Your task to perform on an android device: Do I have any events today? Image 0: 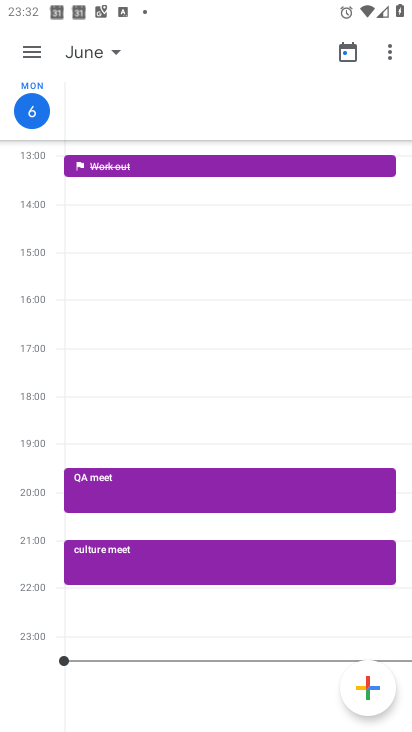
Step 0: press home button
Your task to perform on an android device: Do I have any events today? Image 1: 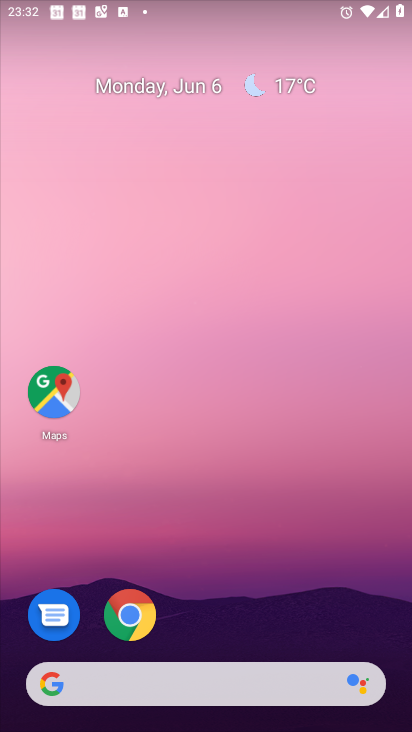
Step 1: drag from (402, 703) to (326, 109)
Your task to perform on an android device: Do I have any events today? Image 2: 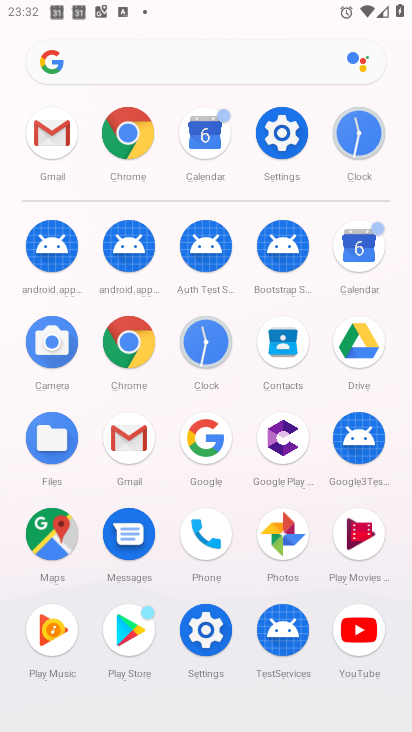
Step 2: click (347, 246)
Your task to perform on an android device: Do I have any events today? Image 3: 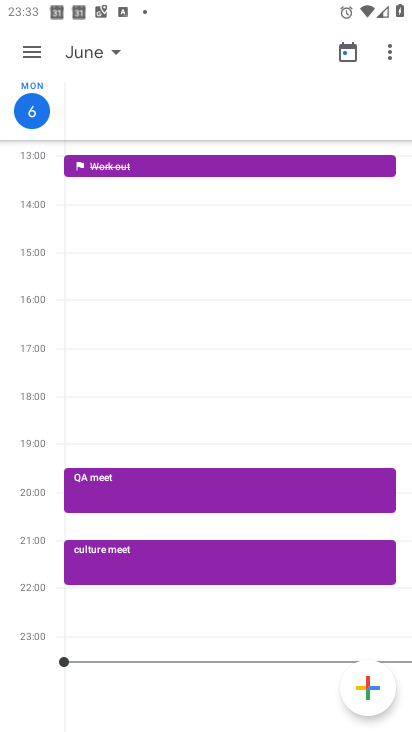
Step 3: click (28, 45)
Your task to perform on an android device: Do I have any events today? Image 4: 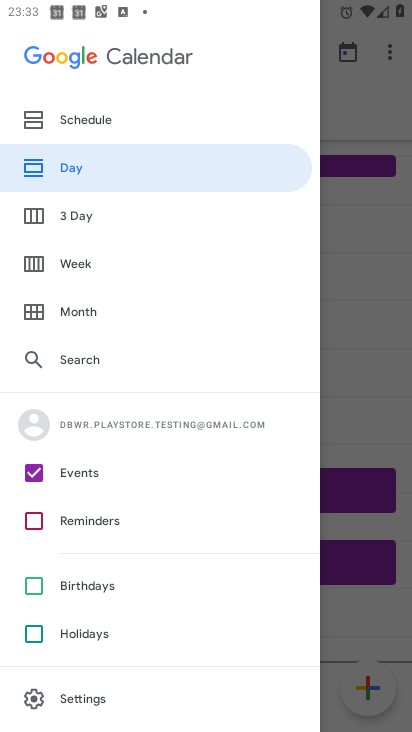
Step 4: click (72, 172)
Your task to perform on an android device: Do I have any events today? Image 5: 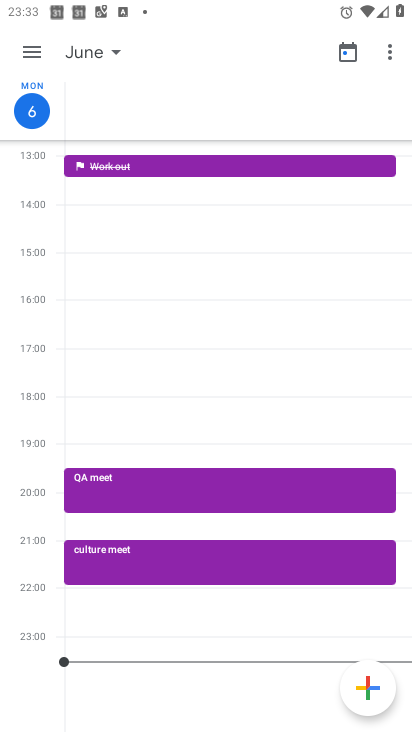
Step 5: click (388, 49)
Your task to perform on an android device: Do I have any events today? Image 6: 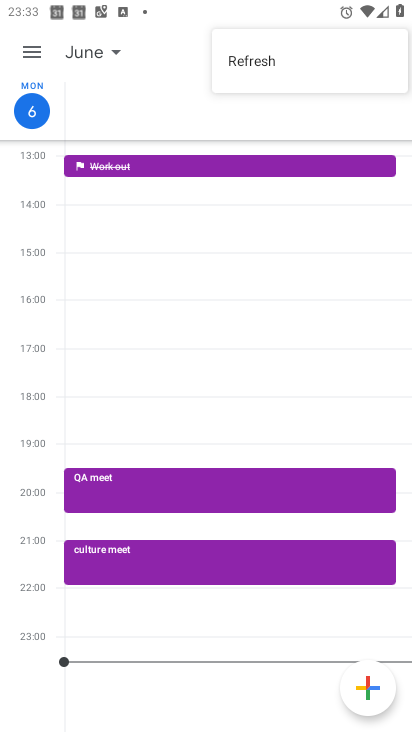
Step 6: click (35, 48)
Your task to perform on an android device: Do I have any events today? Image 7: 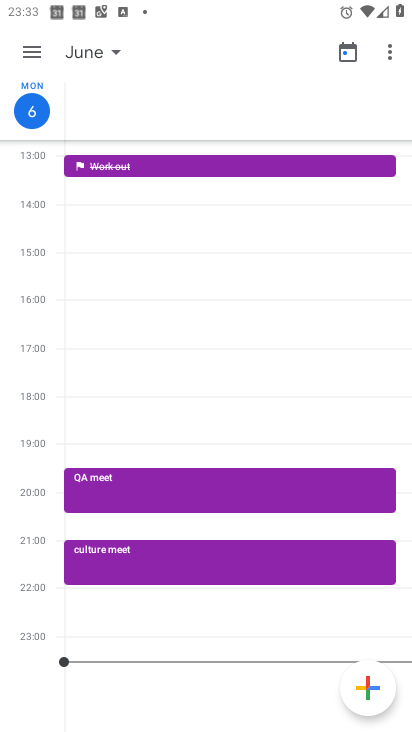
Step 7: click (27, 54)
Your task to perform on an android device: Do I have any events today? Image 8: 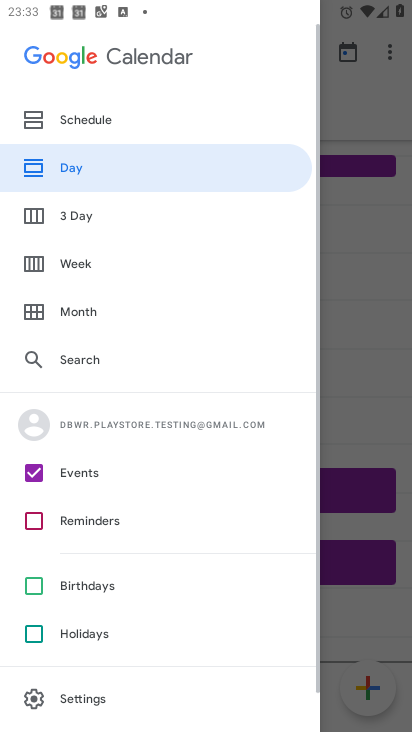
Step 8: click (97, 119)
Your task to perform on an android device: Do I have any events today? Image 9: 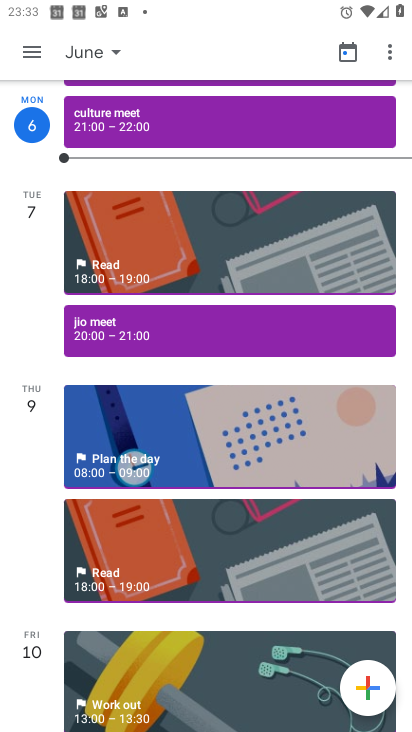
Step 9: task complete